Your task to perform on an android device: Open calendar and show me the third week of next month Image 0: 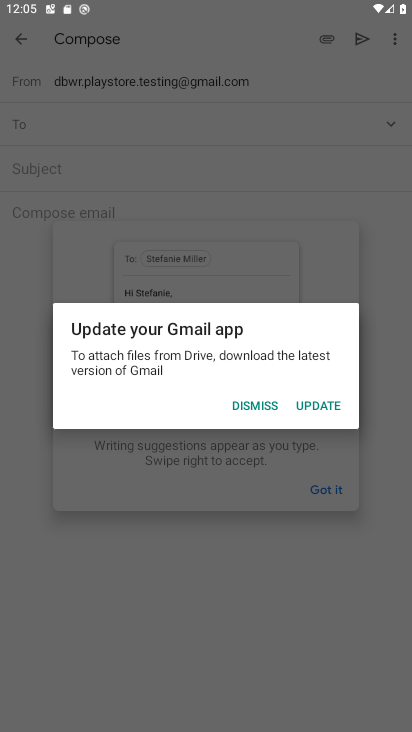
Step 0: press home button
Your task to perform on an android device: Open calendar and show me the third week of next month Image 1: 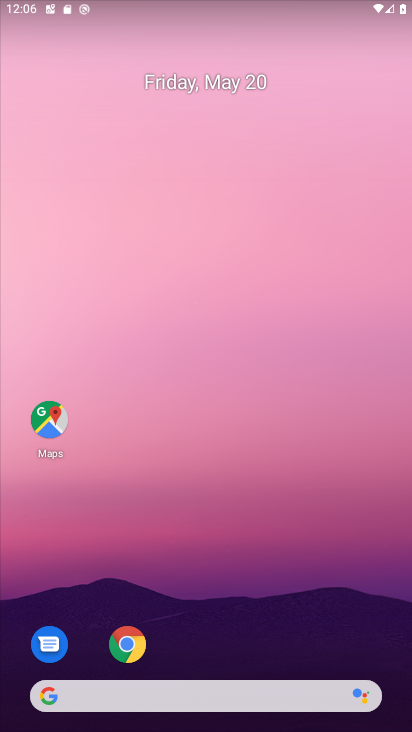
Step 1: drag from (271, 672) to (226, 198)
Your task to perform on an android device: Open calendar and show me the third week of next month Image 2: 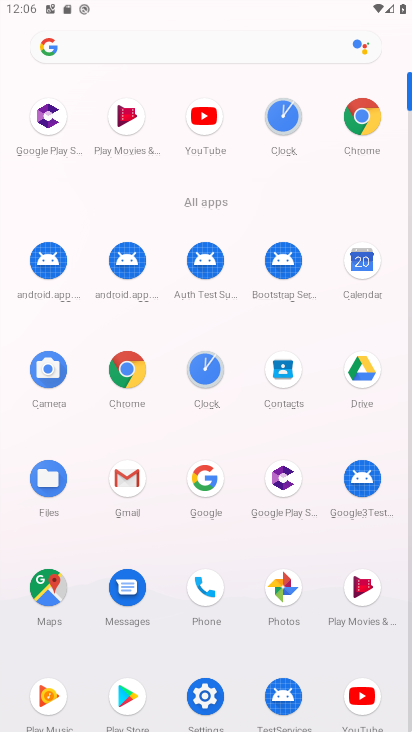
Step 2: click (357, 247)
Your task to perform on an android device: Open calendar and show me the third week of next month Image 3: 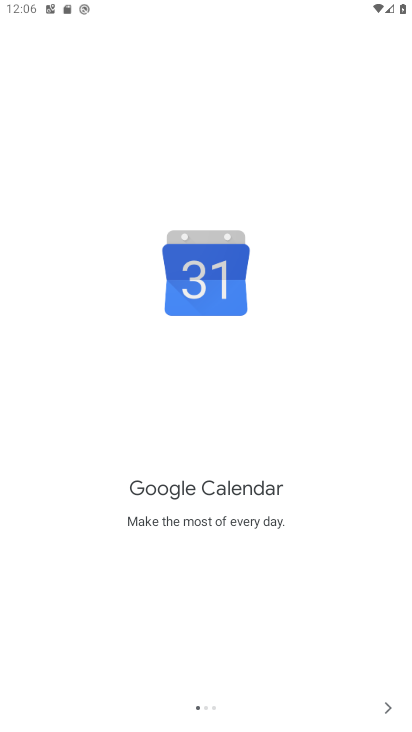
Step 3: click (387, 700)
Your task to perform on an android device: Open calendar and show me the third week of next month Image 4: 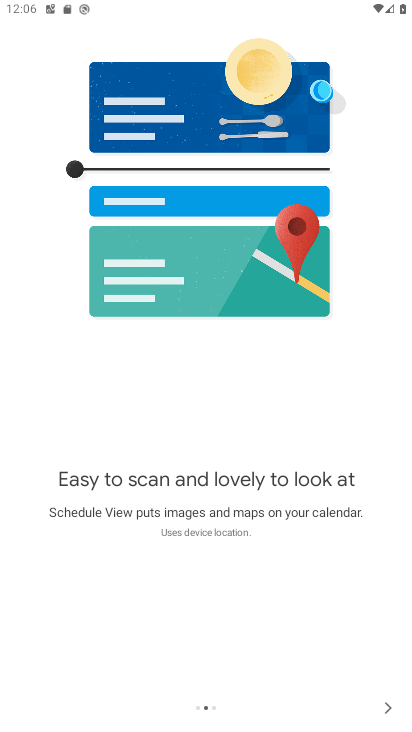
Step 4: click (382, 703)
Your task to perform on an android device: Open calendar and show me the third week of next month Image 5: 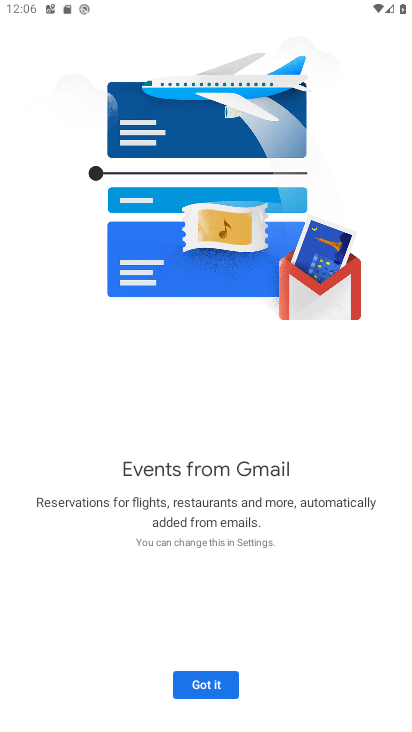
Step 5: click (182, 686)
Your task to perform on an android device: Open calendar and show me the third week of next month Image 6: 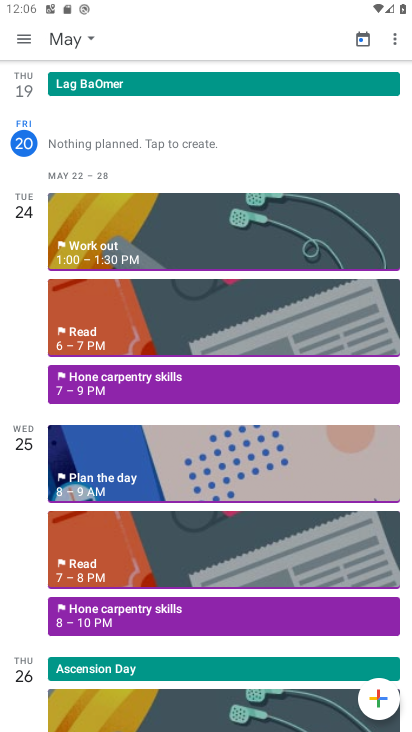
Step 6: click (68, 37)
Your task to perform on an android device: Open calendar and show me the third week of next month Image 7: 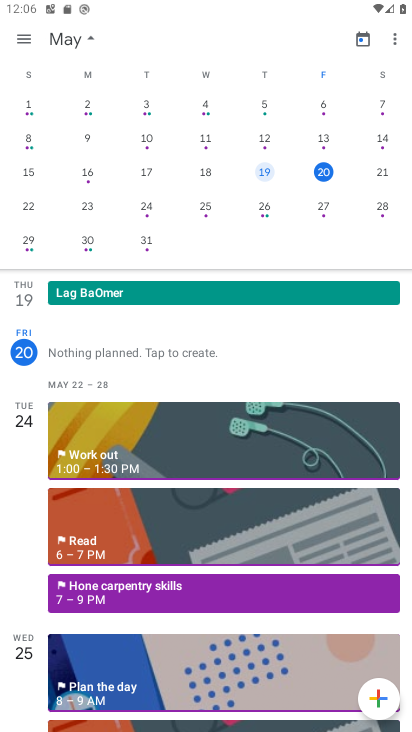
Step 7: drag from (349, 201) to (7, 204)
Your task to perform on an android device: Open calendar and show me the third week of next month Image 8: 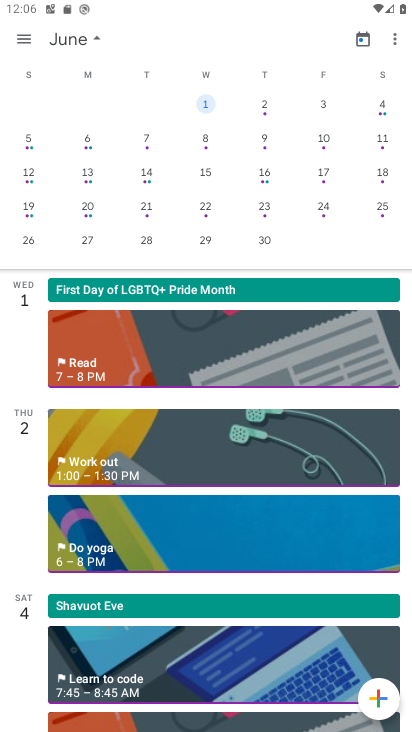
Step 8: click (24, 174)
Your task to perform on an android device: Open calendar and show me the third week of next month Image 9: 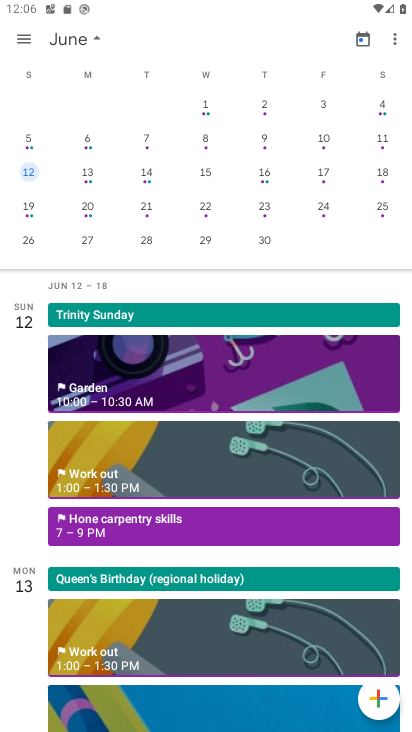
Step 9: task complete